Your task to perform on an android device: Go to Reddit.com Image 0: 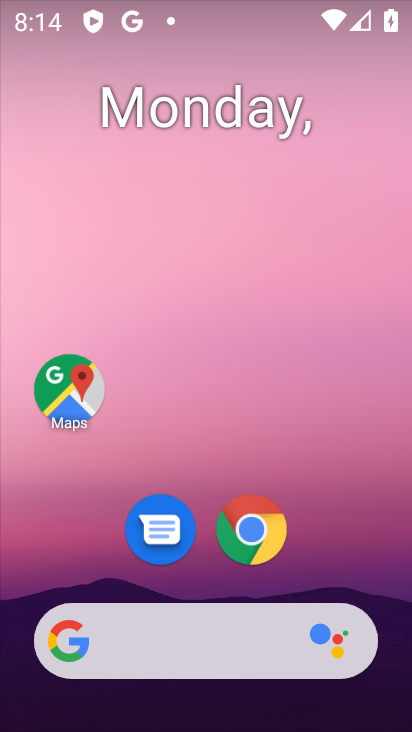
Step 0: drag from (294, 634) to (193, 226)
Your task to perform on an android device: Go to Reddit.com Image 1: 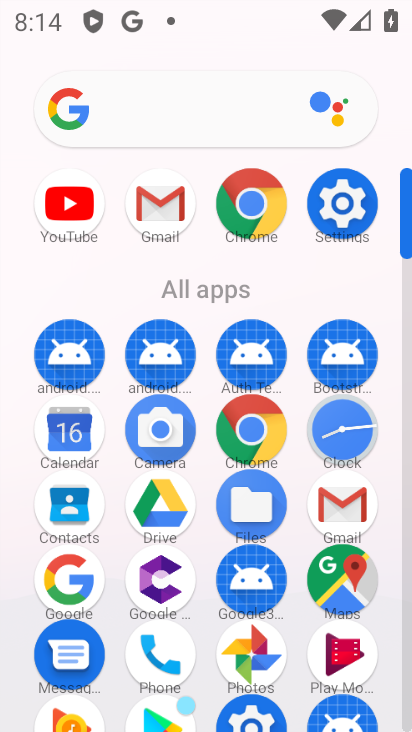
Step 1: click (267, 198)
Your task to perform on an android device: Go to Reddit.com Image 2: 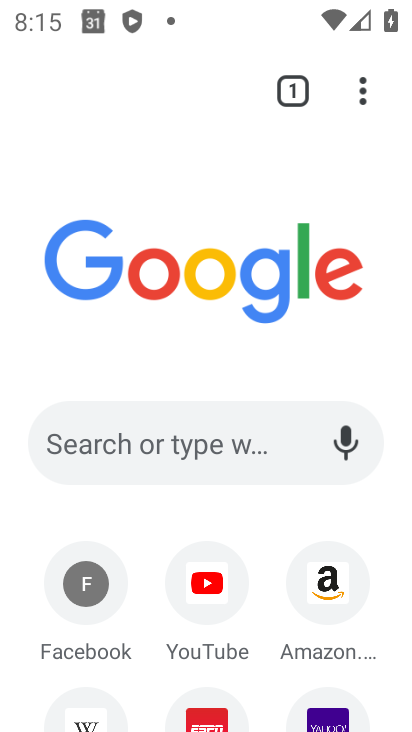
Step 2: click (184, 435)
Your task to perform on an android device: Go to Reddit.com Image 3: 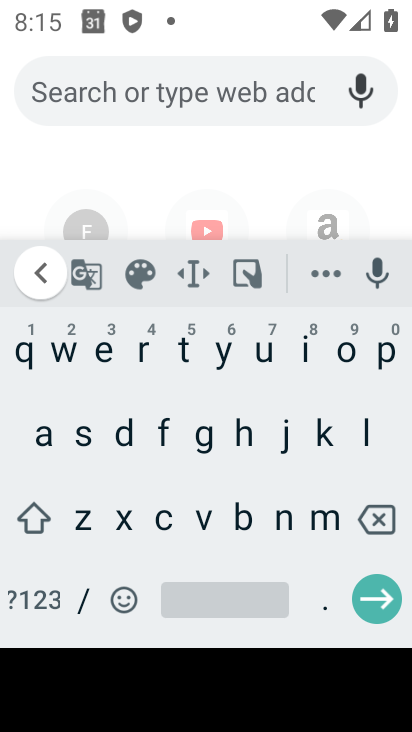
Step 3: click (128, 353)
Your task to perform on an android device: Go to Reddit.com Image 4: 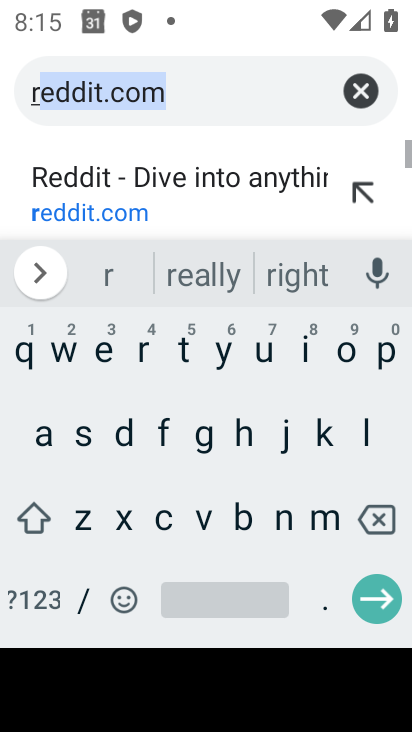
Step 4: click (101, 350)
Your task to perform on an android device: Go to Reddit.com Image 5: 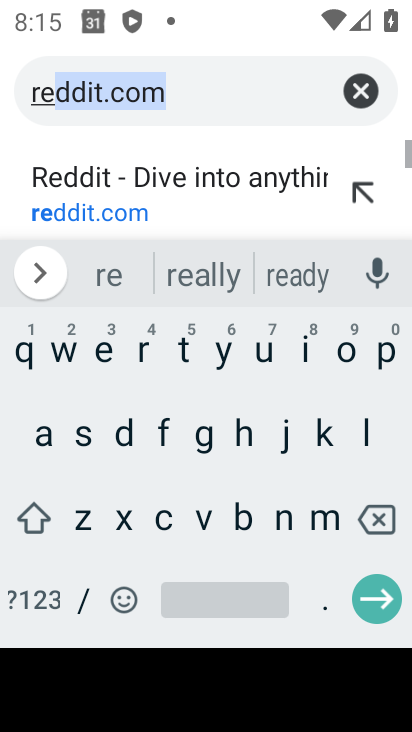
Step 5: click (208, 96)
Your task to perform on an android device: Go to Reddit.com Image 6: 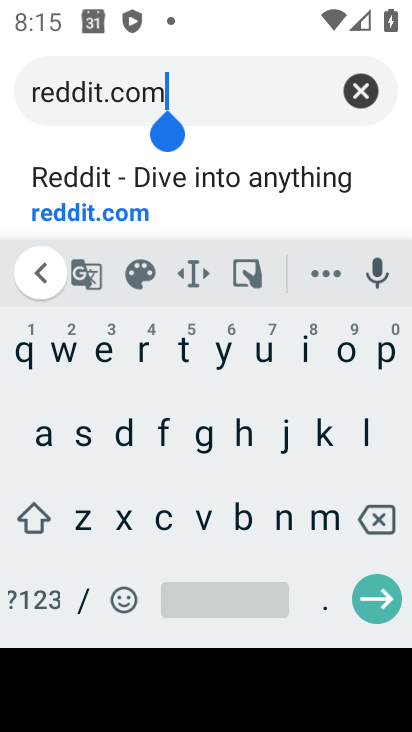
Step 6: click (377, 593)
Your task to perform on an android device: Go to Reddit.com Image 7: 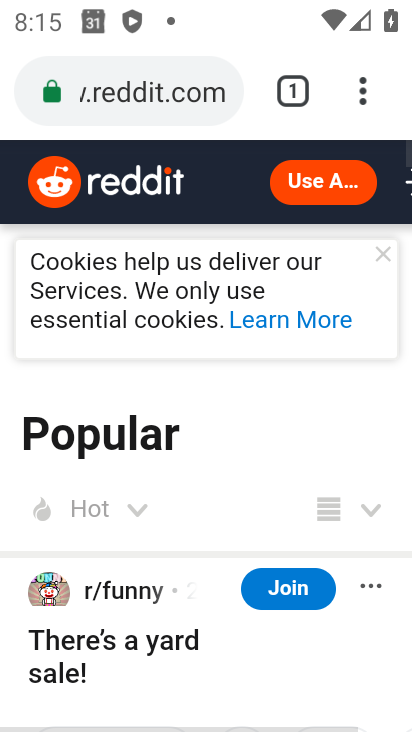
Step 7: task complete